Your task to perform on an android device: Go to Google maps Image 0: 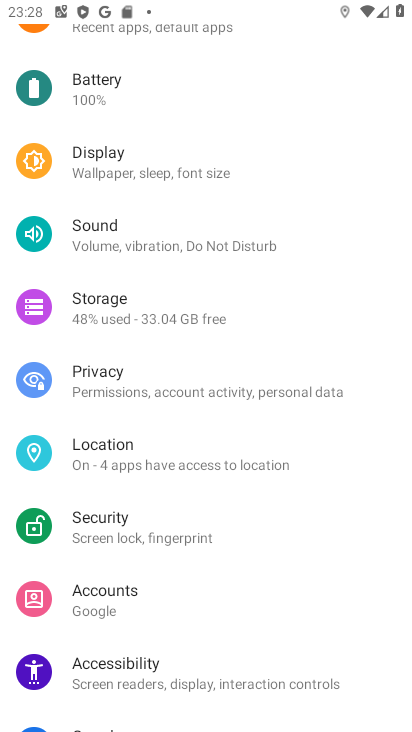
Step 0: press home button
Your task to perform on an android device: Go to Google maps Image 1: 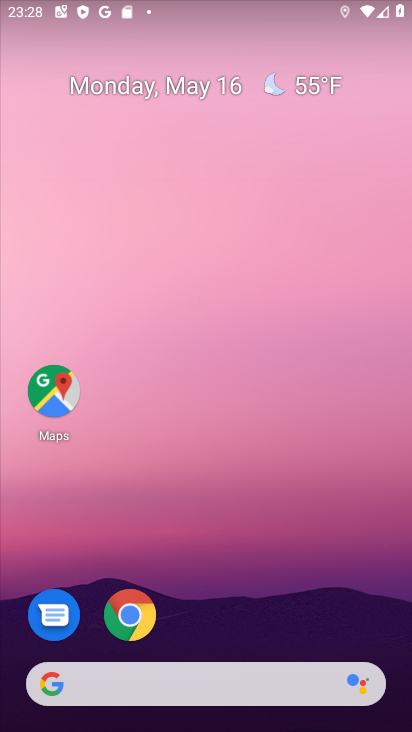
Step 1: drag from (230, 641) to (223, 78)
Your task to perform on an android device: Go to Google maps Image 2: 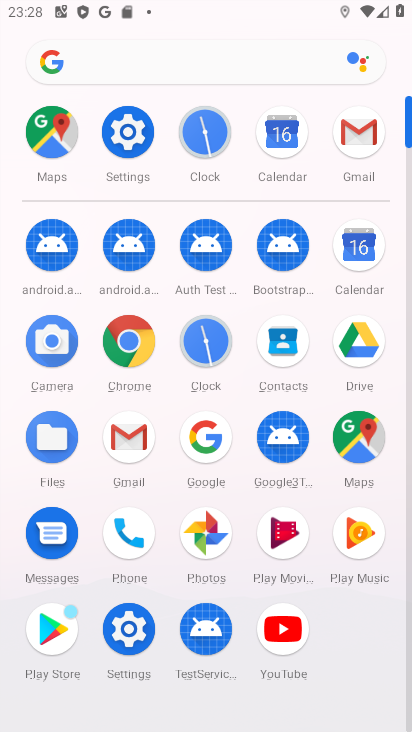
Step 2: click (346, 450)
Your task to perform on an android device: Go to Google maps Image 3: 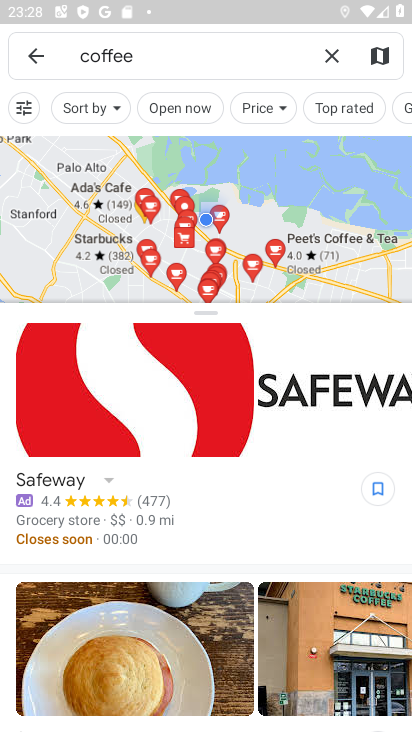
Step 3: click (335, 257)
Your task to perform on an android device: Go to Google maps Image 4: 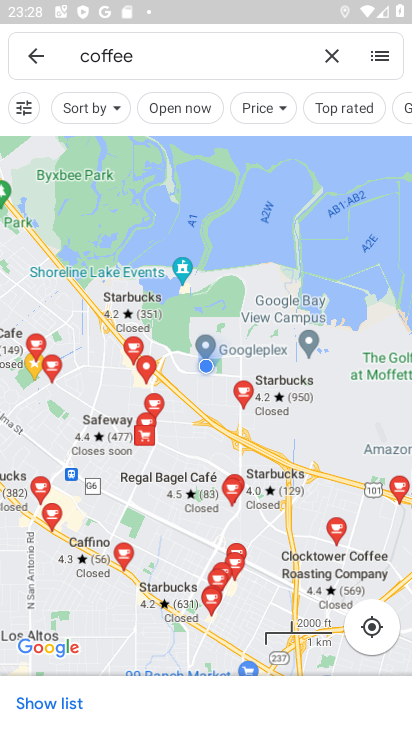
Step 4: task complete